Your task to perform on an android device: Set the phone to "Do not disturb". Image 0: 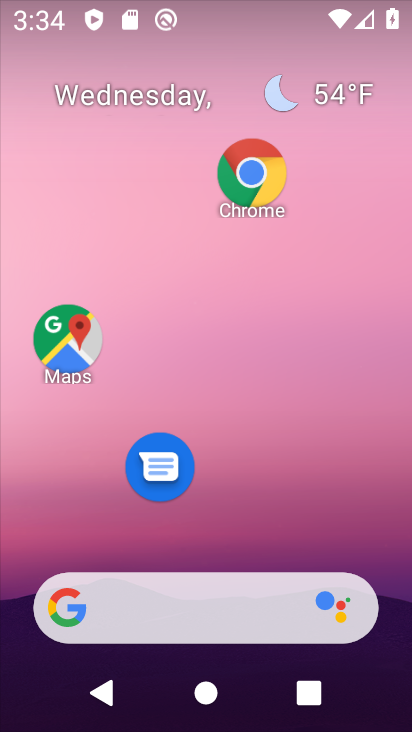
Step 0: drag from (207, 39) to (224, 568)
Your task to perform on an android device: Set the phone to "Do not disturb". Image 1: 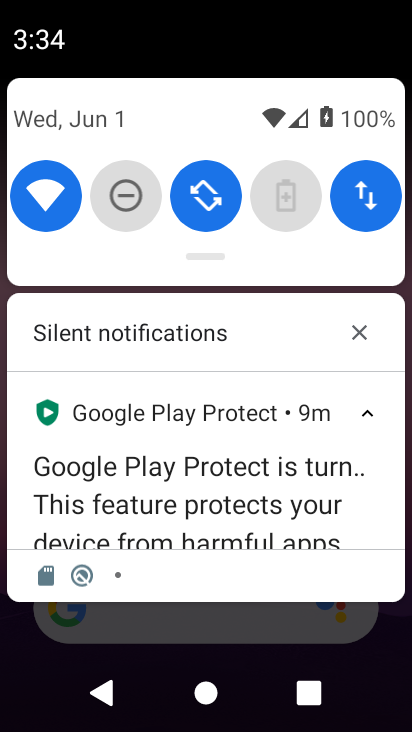
Step 1: click (129, 191)
Your task to perform on an android device: Set the phone to "Do not disturb". Image 2: 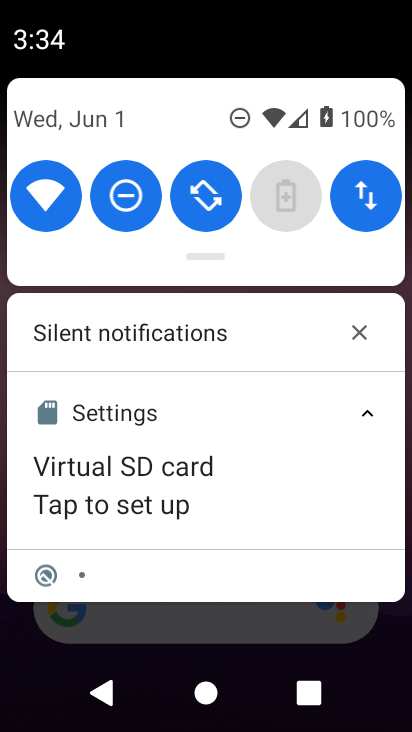
Step 2: task complete